Your task to perform on an android device: toggle sleep mode Image 0: 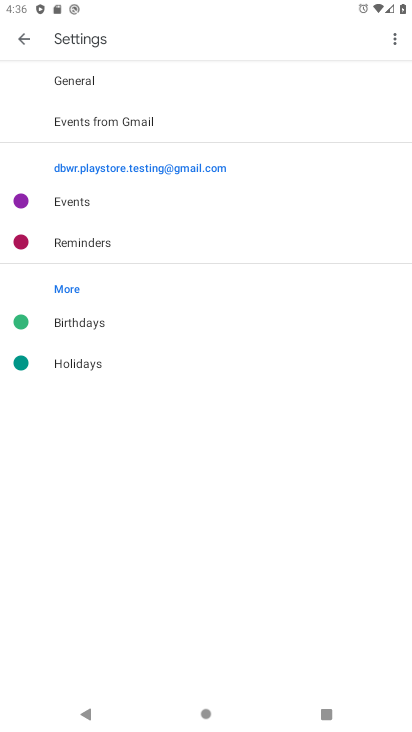
Step 0: click (202, 707)
Your task to perform on an android device: toggle sleep mode Image 1: 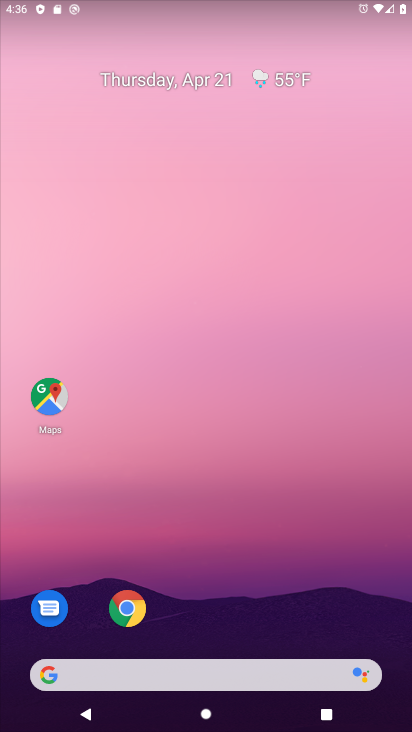
Step 1: drag from (195, 535) to (338, 101)
Your task to perform on an android device: toggle sleep mode Image 2: 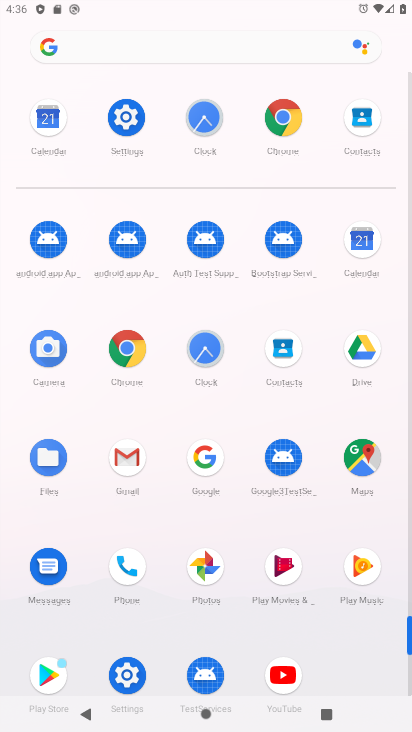
Step 2: click (128, 121)
Your task to perform on an android device: toggle sleep mode Image 3: 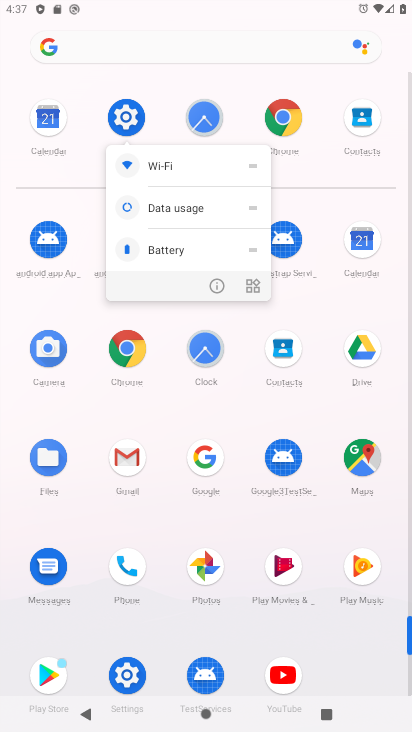
Step 3: click (128, 110)
Your task to perform on an android device: toggle sleep mode Image 4: 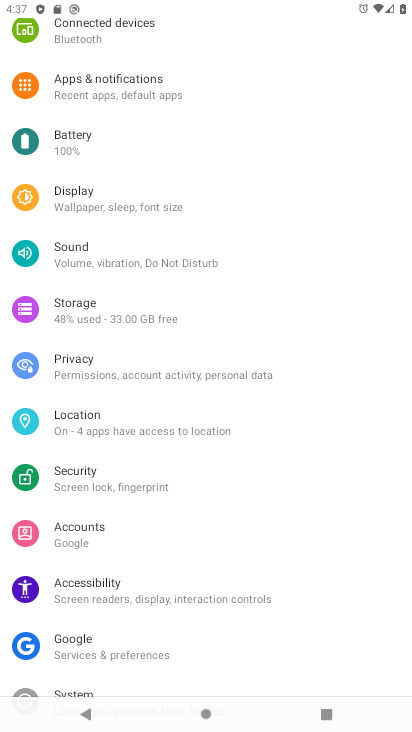
Step 4: click (129, 199)
Your task to perform on an android device: toggle sleep mode Image 5: 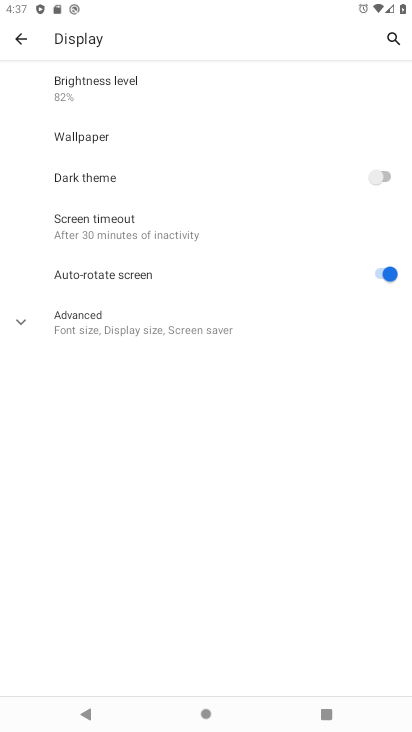
Step 5: task complete